Your task to perform on an android device: star an email in the gmail app Image 0: 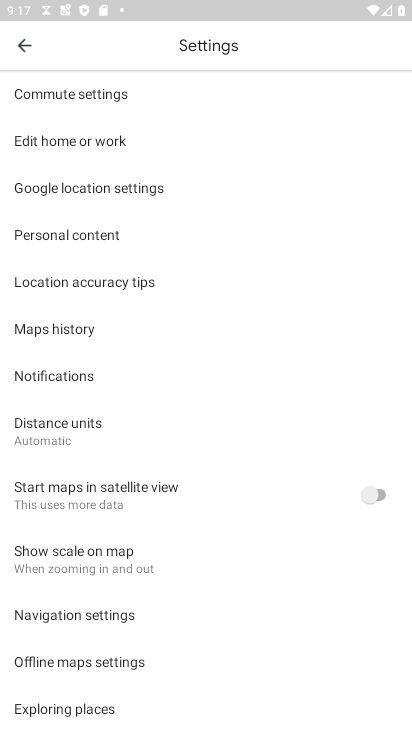
Step 0: press back button
Your task to perform on an android device: star an email in the gmail app Image 1: 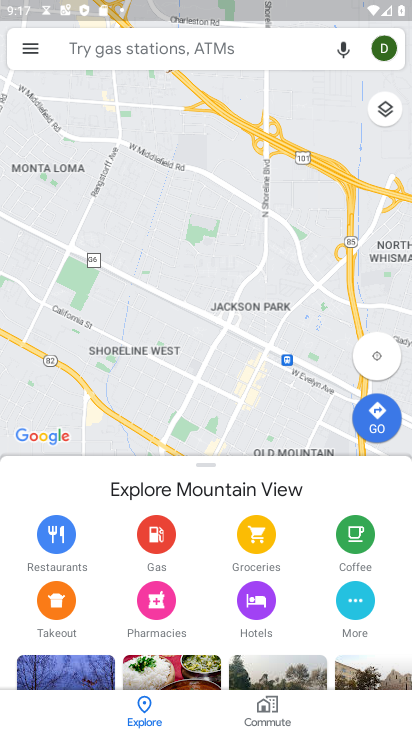
Step 1: press home button
Your task to perform on an android device: star an email in the gmail app Image 2: 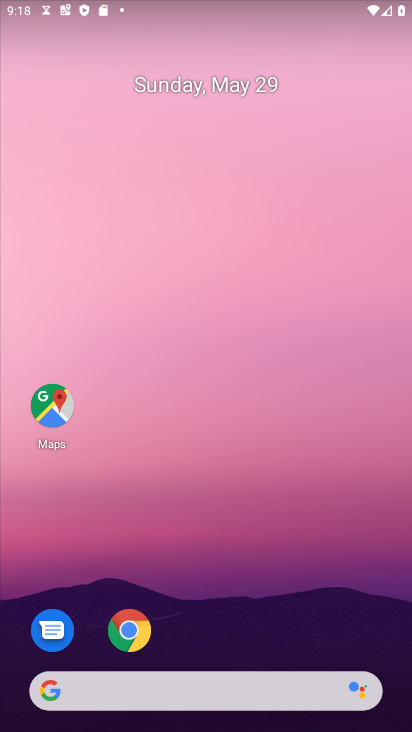
Step 2: drag from (264, 647) to (329, 41)
Your task to perform on an android device: star an email in the gmail app Image 3: 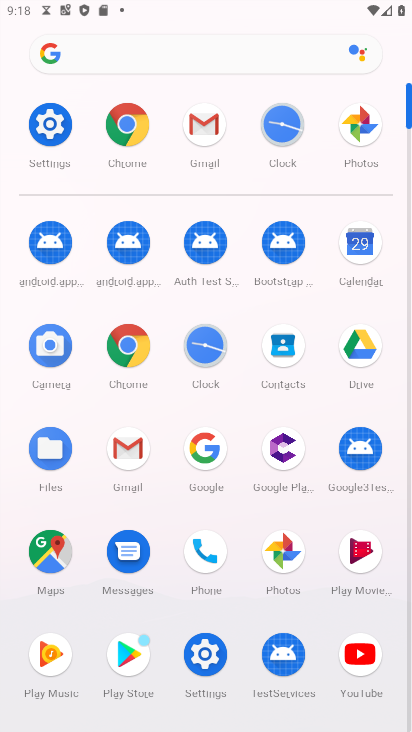
Step 3: click (208, 134)
Your task to perform on an android device: star an email in the gmail app Image 4: 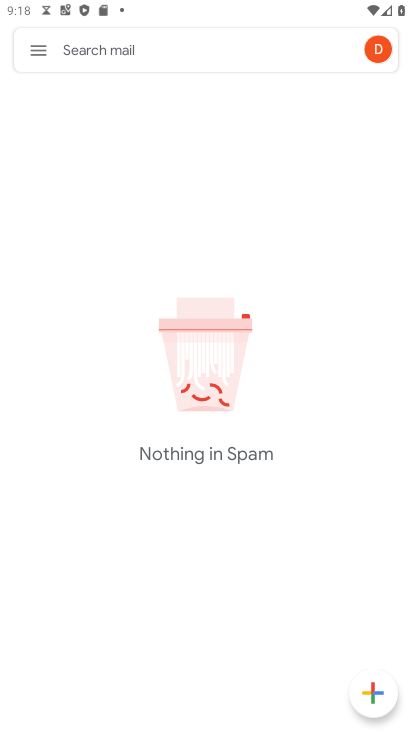
Step 4: click (38, 50)
Your task to perform on an android device: star an email in the gmail app Image 5: 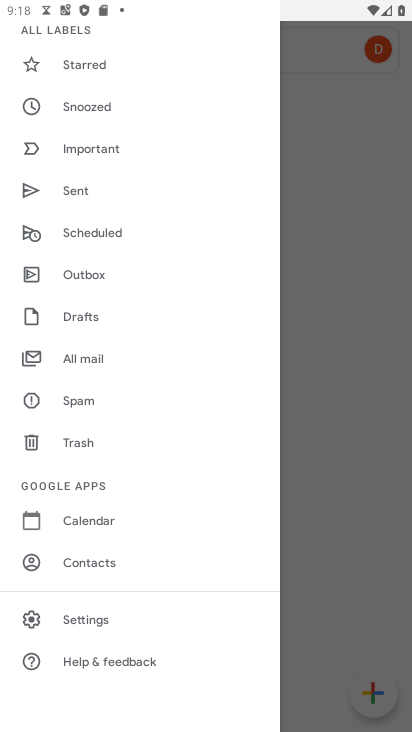
Step 5: click (96, 356)
Your task to perform on an android device: star an email in the gmail app Image 6: 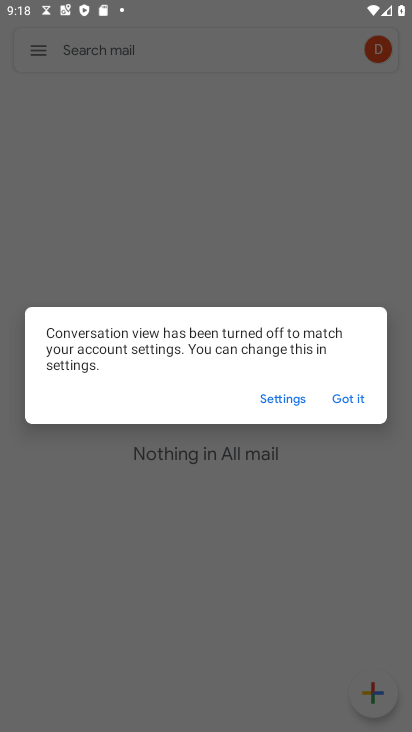
Step 6: click (343, 400)
Your task to perform on an android device: star an email in the gmail app Image 7: 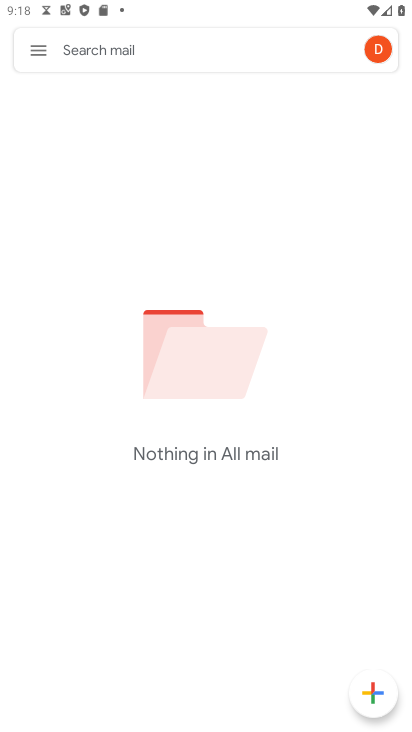
Step 7: task complete